Your task to perform on an android device: open a new tab in the chrome app Image 0: 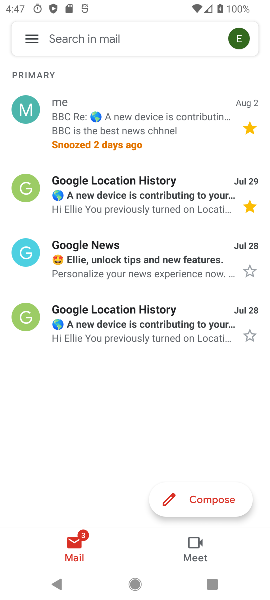
Step 0: press back button
Your task to perform on an android device: open a new tab in the chrome app Image 1: 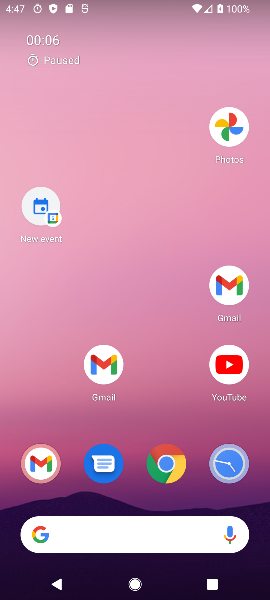
Step 1: press home button
Your task to perform on an android device: open a new tab in the chrome app Image 2: 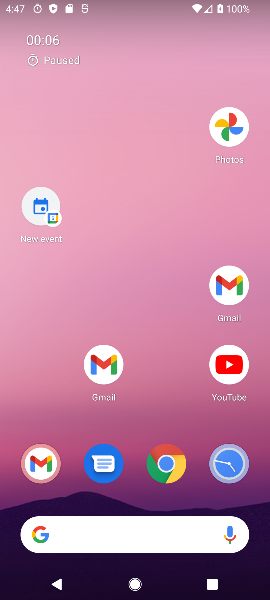
Step 2: drag from (201, 582) to (193, 290)
Your task to perform on an android device: open a new tab in the chrome app Image 3: 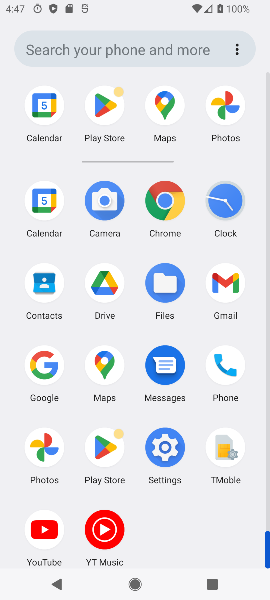
Step 3: click (153, 192)
Your task to perform on an android device: open a new tab in the chrome app Image 4: 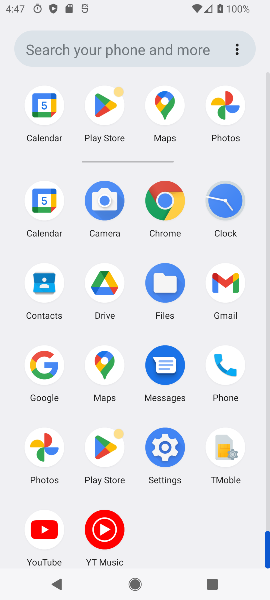
Step 4: click (157, 194)
Your task to perform on an android device: open a new tab in the chrome app Image 5: 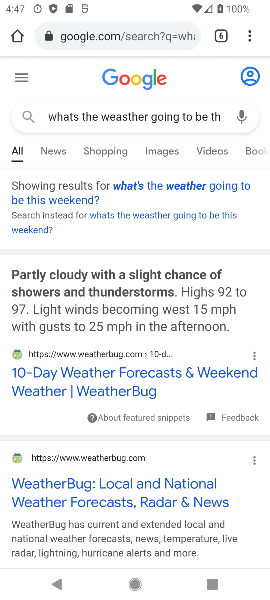
Step 5: drag from (245, 35) to (154, 125)
Your task to perform on an android device: open a new tab in the chrome app Image 6: 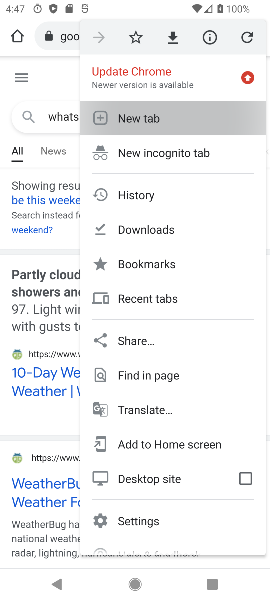
Step 6: click (156, 126)
Your task to perform on an android device: open a new tab in the chrome app Image 7: 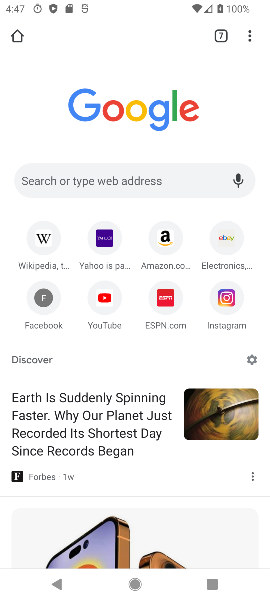
Step 7: click (43, 177)
Your task to perform on an android device: open a new tab in the chrome app Image 8: 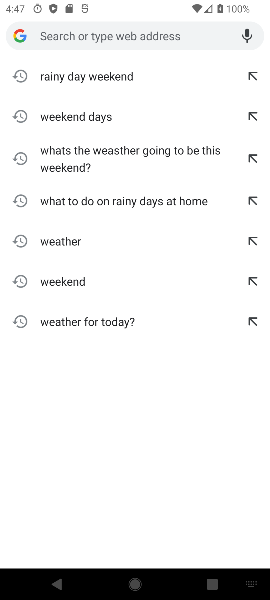
Step 8: task complete